Your task to perform on an android device: Do I have any events today? Image 0: 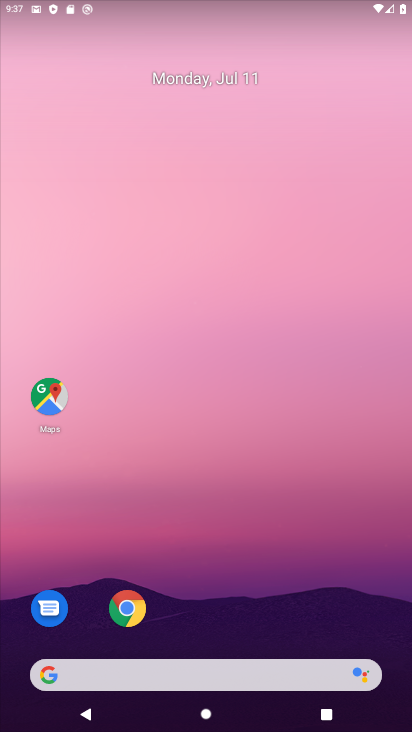
Step 0: drag from (203, 394) to (191, 290)
Your task to perform on an android device: Do I have any events today? Image 1: 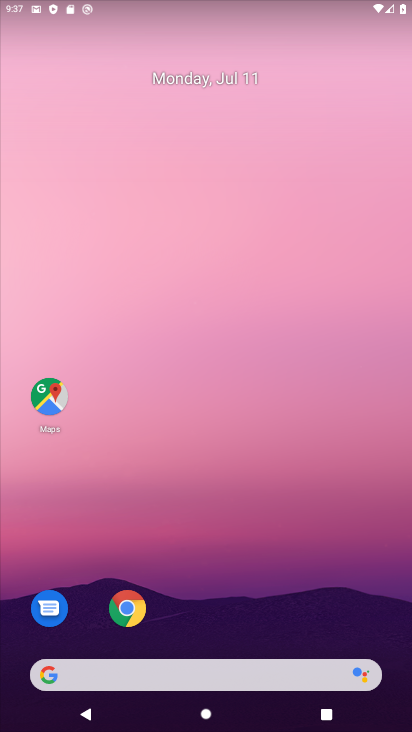
Step 1: drag from (266, 696) to (204, 239)
Your task to perform on an android device: Do I have any events today? Image 2: 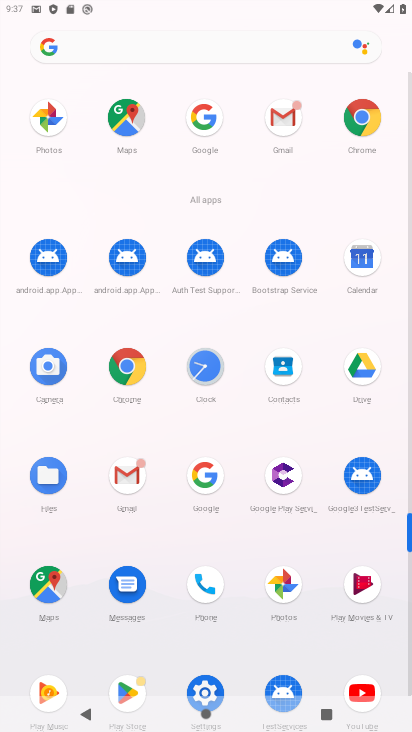
Step 2: click (360, 250)
Your task to perform on an android device: Do I have any events today? Image 3: 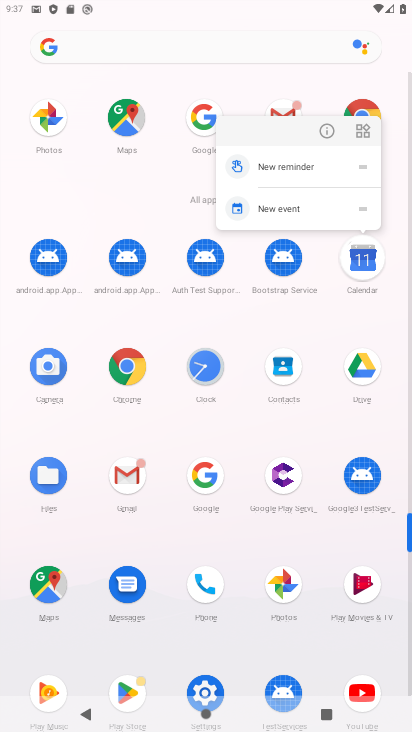
Step 3: click (365, 249)
Your task to perform on an android device: Do I have any events today? Image 4: 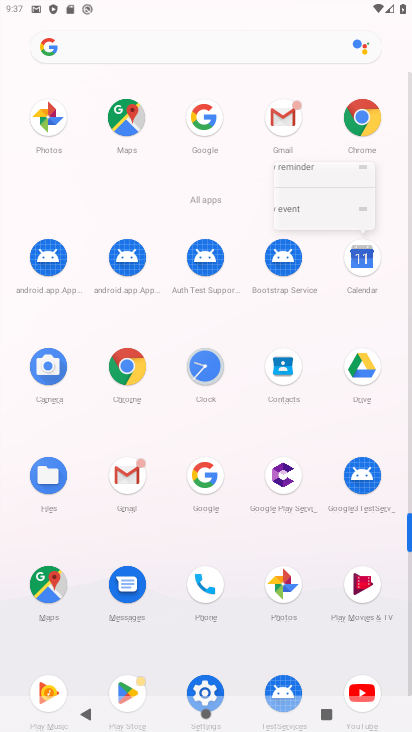
Step 4: click (367, 249)
Your task to perform on an android device: Do I have any events today? Image 5: 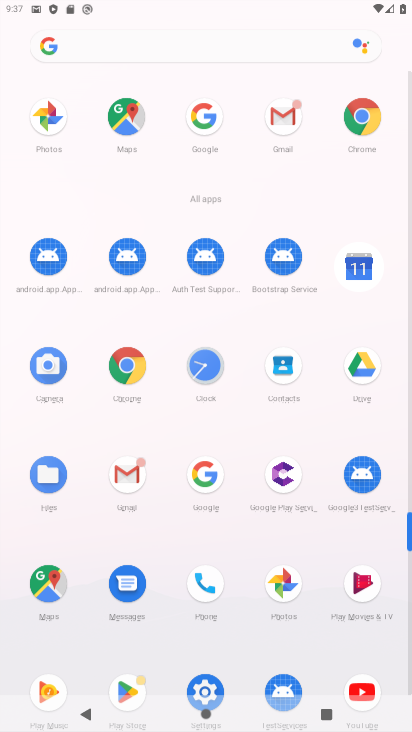
Step 5: click (362, 248)
Your task to perform on an android device: Do I have any events today? Image 6: 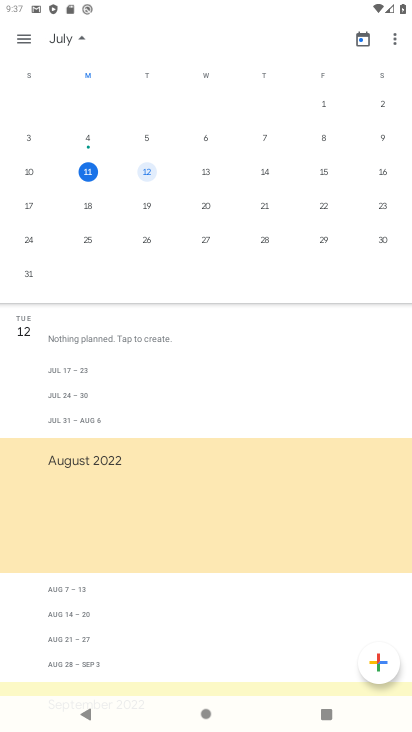
Step 6: click (363, 247)
Your task to perform on an android device: Do I have any events today? Image 7: 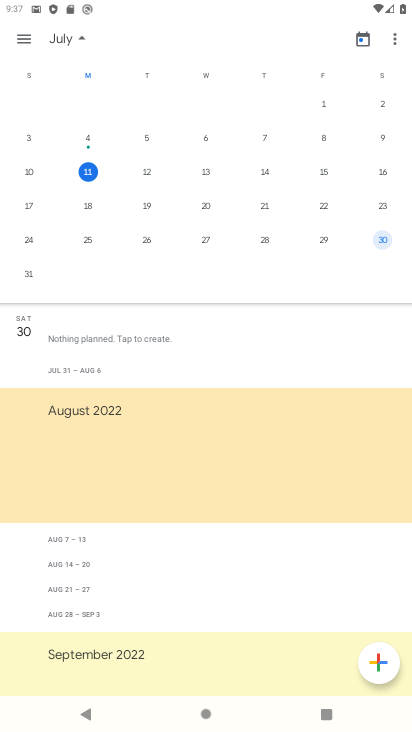
Step 7: click (140, 166)
Your task to perform on an android device: Do I have any events today? Image 8: 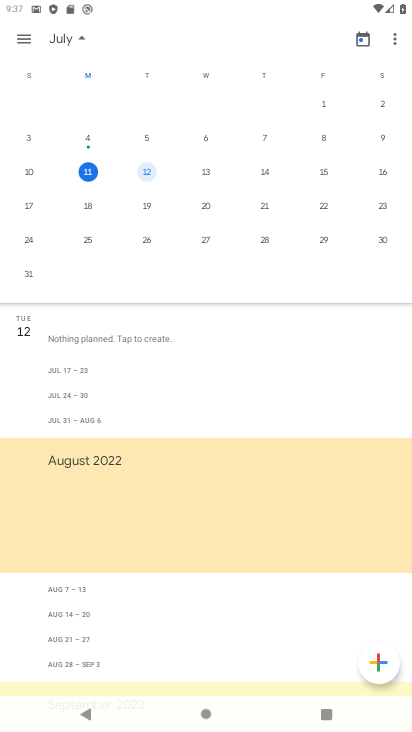
Step 8: click (140, 166)
Your task to perform on an android device: Do I have any events today? Image 9: 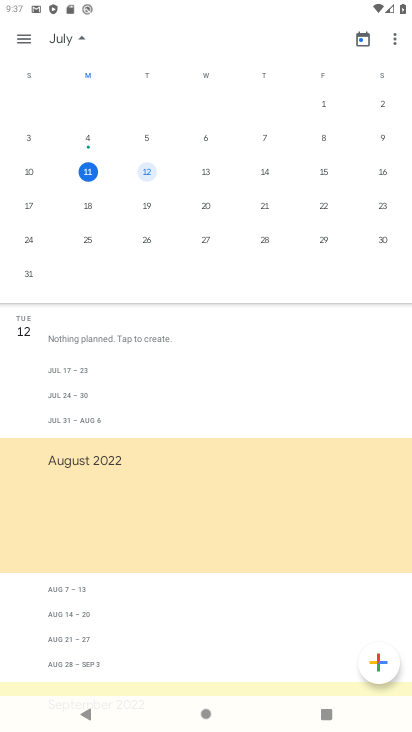
Step 9: click (141, 166)
Your task to perform on an android device: Do I have any events today? Image 10: 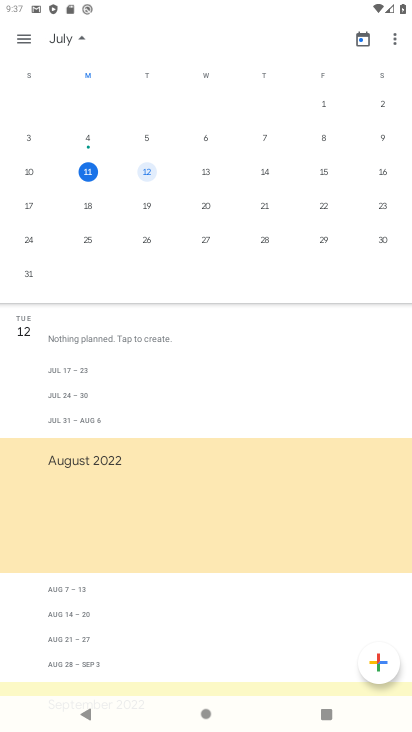
Step 10: click (143, 171)
Your task to perform on an android device: Do I have any events today? Image 11: 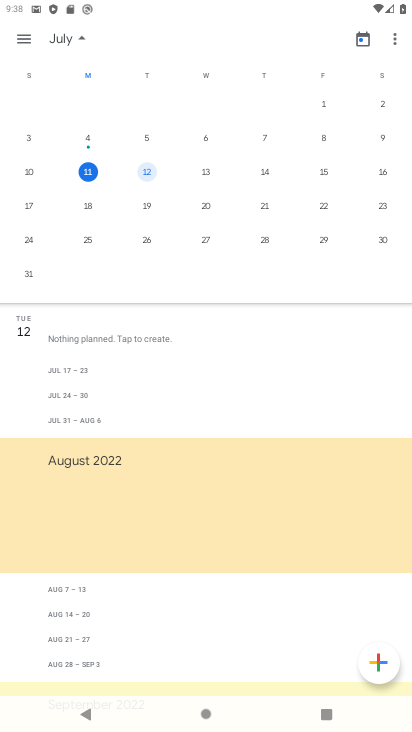
Step 11: click (137, 175)
Your task to perform on an android device: Do I have any events today? Image 12: 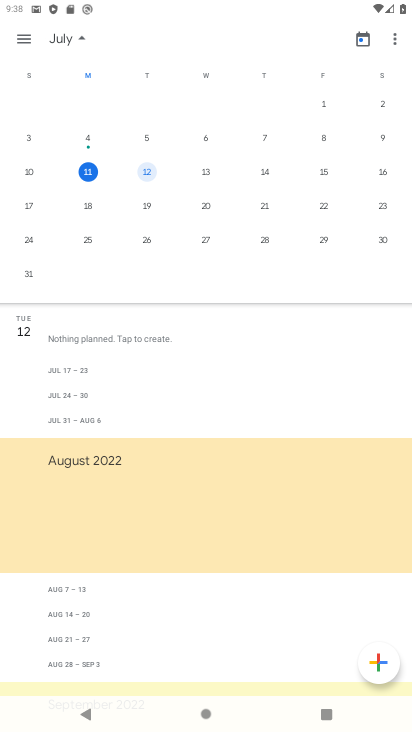
Step 12: task complete